Your task to perform on an android device: Open Reddit.com Image 0: 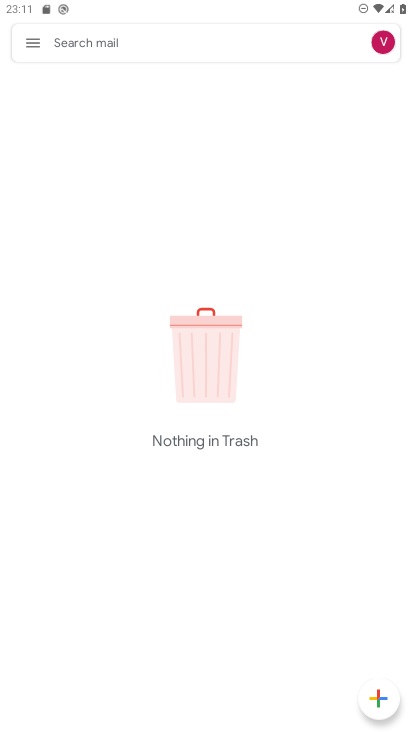
Step 0: press home button
Your task to perform on an android device: Open Reddit.com Image 1: 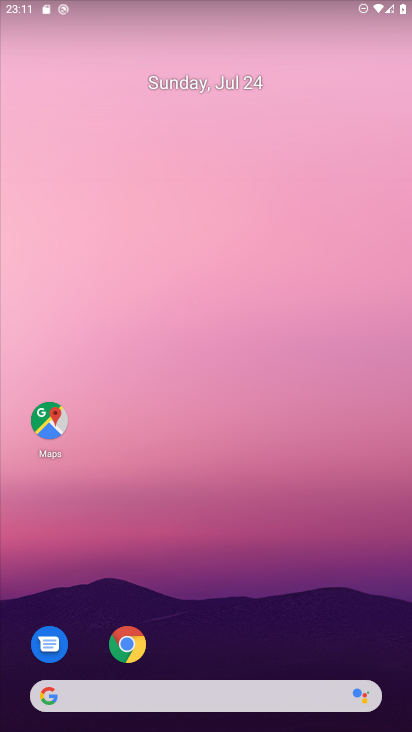
Step 1: click (129, 645)
Your task to perform on an android device: Open Reddit.com Image 2: 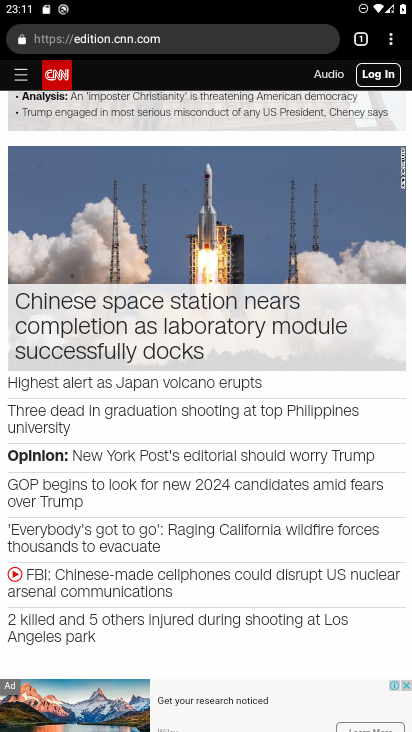
Step 2: click (188, 34)
Your task to perform on an android device: Open Reddit.com Image 3: 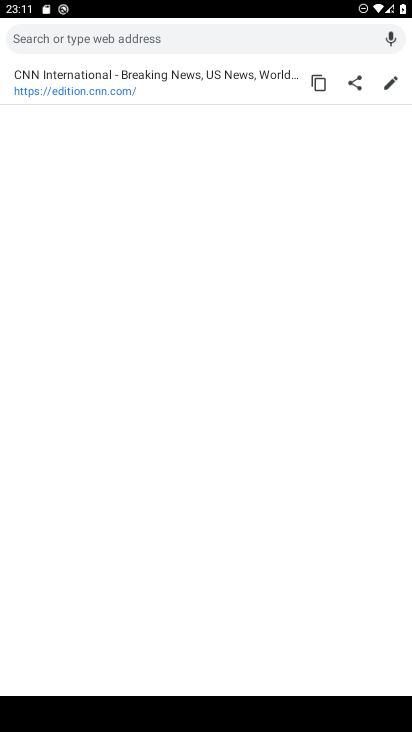
Step 3: type "reddit.com"
Your task to perform on an android device: Open Reddit.com Image 4: 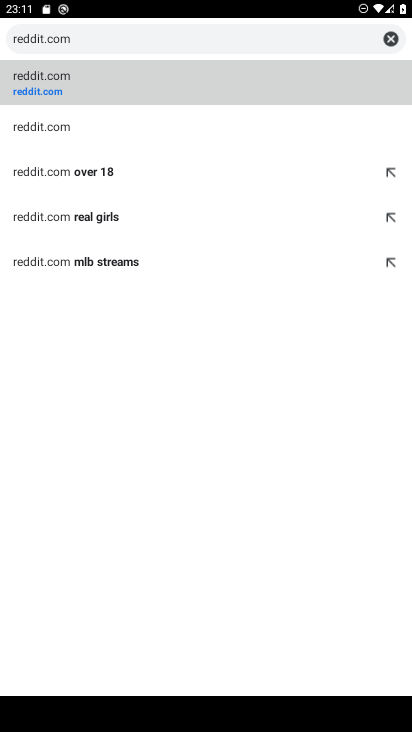
Step 4: click (49, 79)
Your task to perform on an android device: Open Reddit.com Image 5: 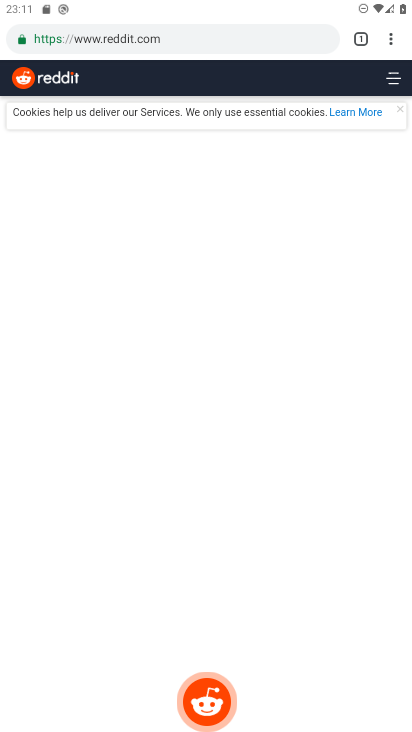
Step 5: task complete